Your task to perform on an android device: Go to display settings Image 0: 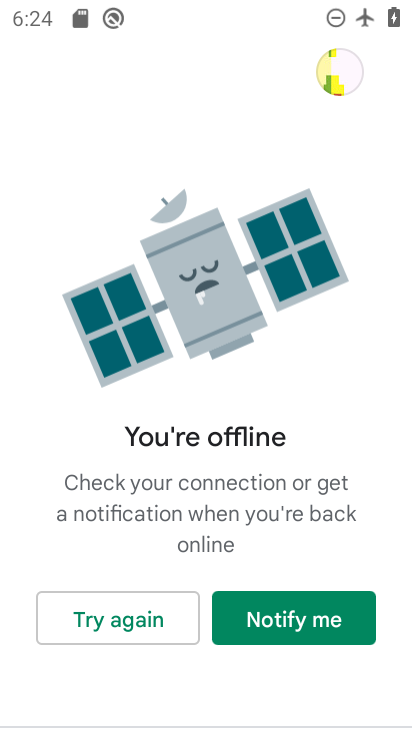
Step 0: press home button
Your task to perform on an android device: Go to display settings Image 1: 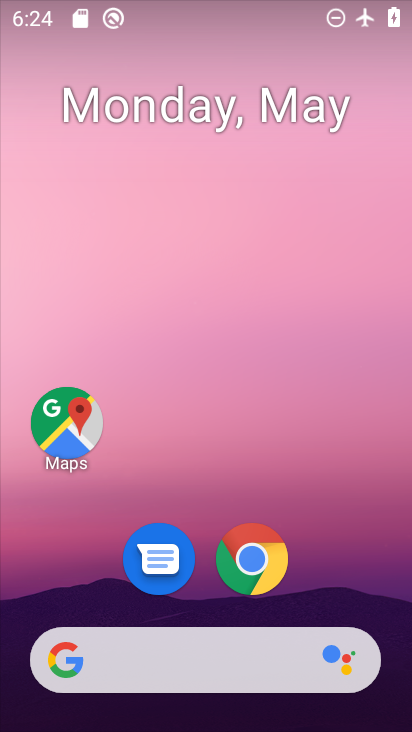
Step 1: drag from (363, 547) to (223, 77)
Your task to perform on an android device: Go to display settings Image 2: 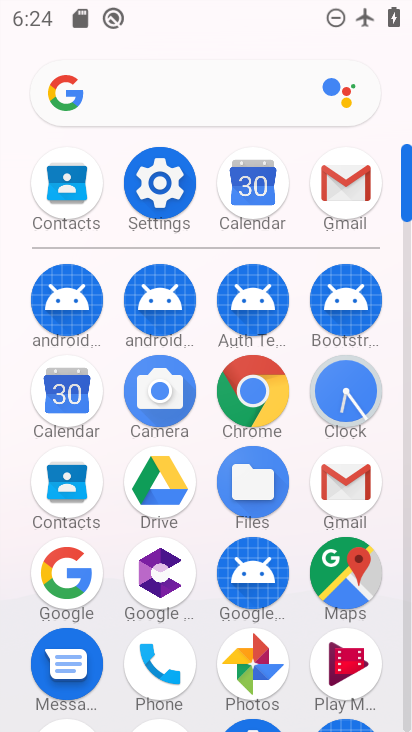
Step 2: click (166, 182)
Your task to perform on an android device: Go to display settings Image 3: 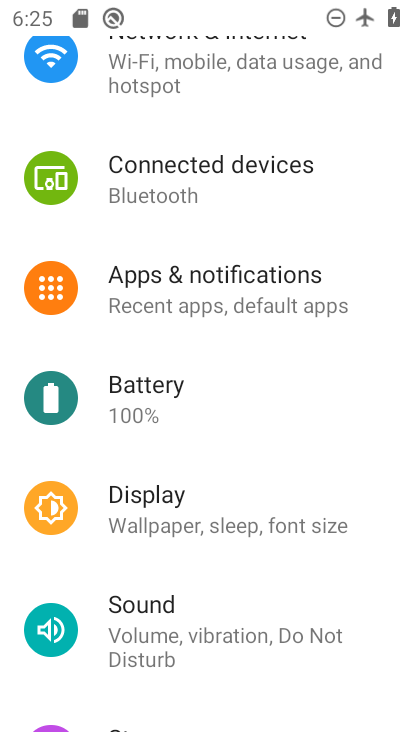
Step 3: click (154, 499)
Your task to perform on an android device: Go to display settings Image 4: 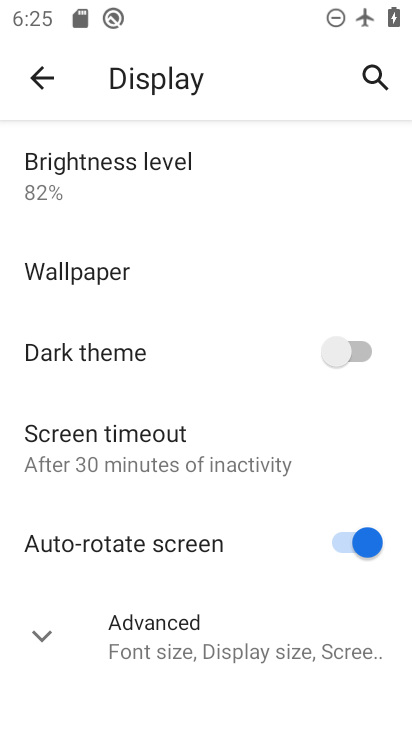
Step 4: task complete